Your task to perform on an android device: turn vacation reply on in the gmail app Image 0: 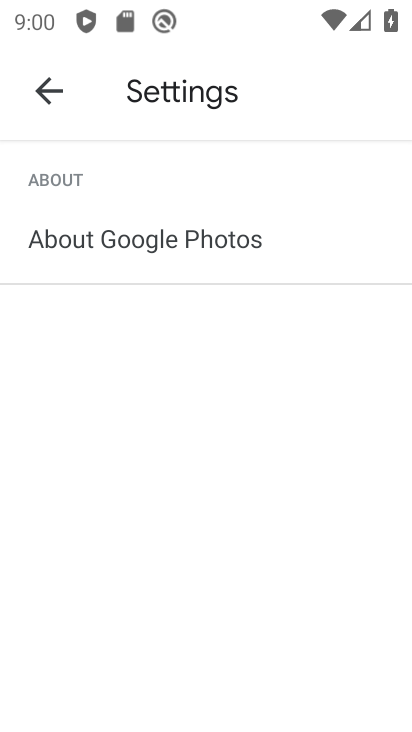
Step 0: press home button
Your task to perform on an android device: turn vacation reply on in the gmail app Image 1: 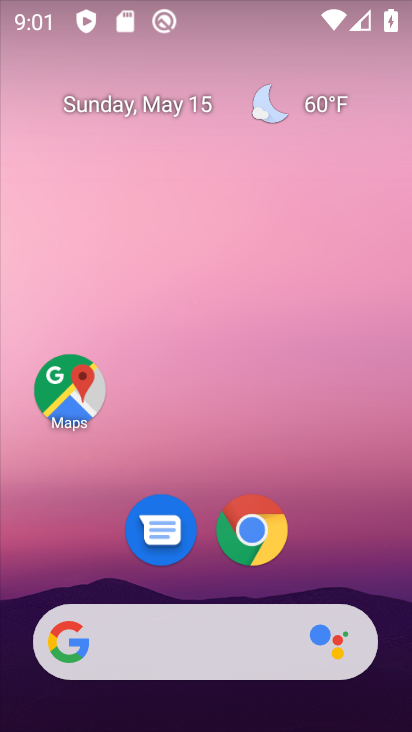
Step 1: drag from (361, 551) to (350, 92)
Your task to perform on an android device: turn vacation reply on in the gmail app Image 2: 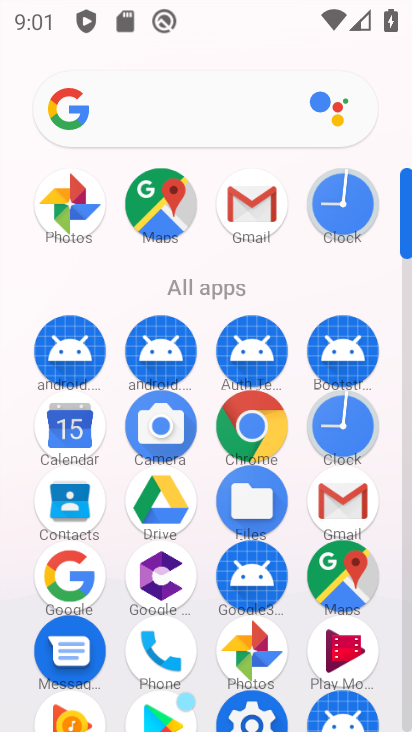
Step 2: click (348, 499)
Your task to perform on an android device: turn vacation reply on in the gmail app Image 3: 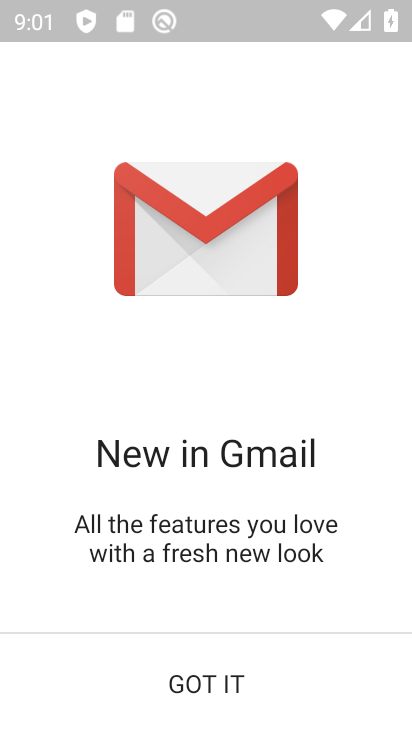
Step 3: click (241, 681)
Your task to perform on an android device: turn vacation reply on in the gmail app Image 4: 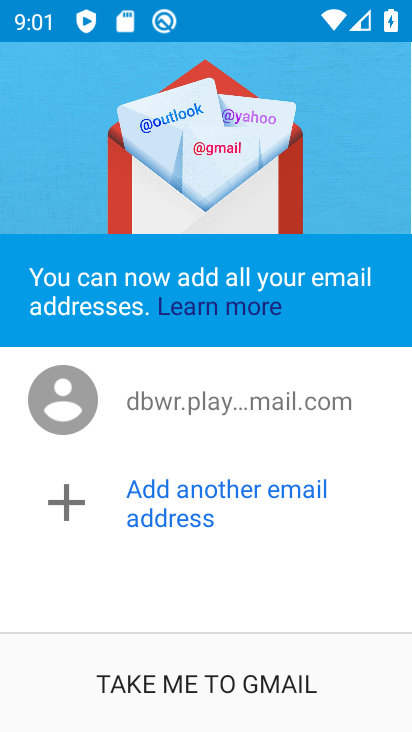
Step 4: click (241, 681)
Your task to perform on an android device: turn vacation reply on in the gmail app Image 5: 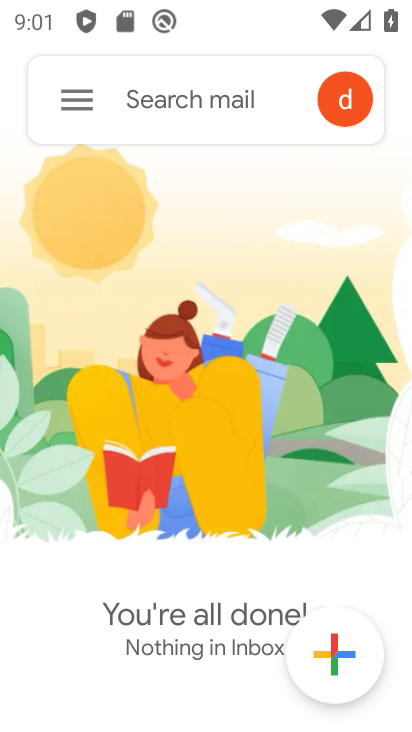
Step 5: click (78, 99)
Your task to perform on an android device: turn vacation reply on in the gmail app Image 6: 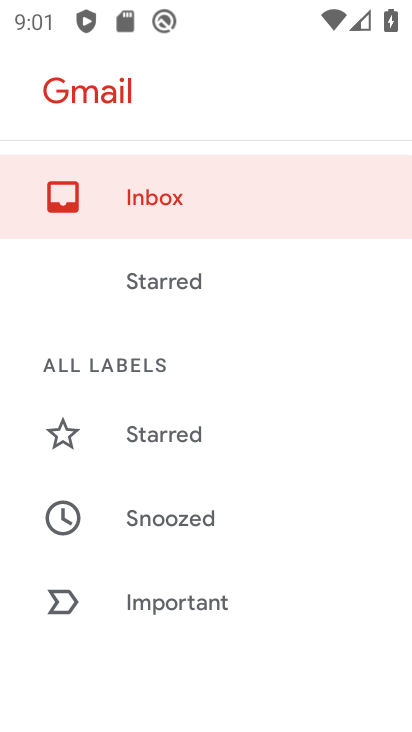
Step 6: drag from (322, 609) to (324, 383)
Your task to perform on an android device: turn vacation reply on in the gmail app Image 7: 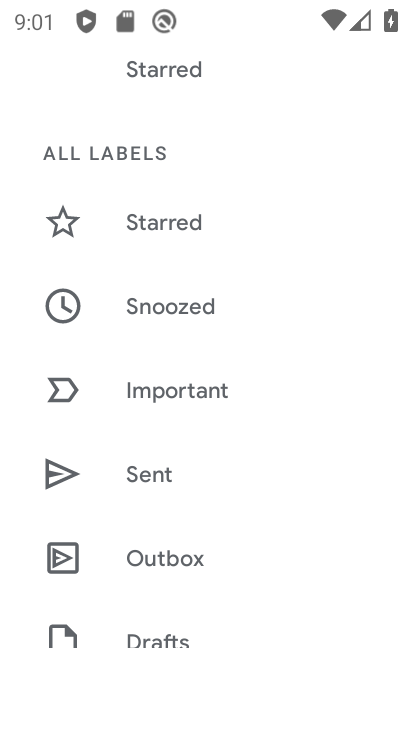
Step 7: drag from (309, 602) to (319, 458)
Your task to perform on an android device: turn vacation reply on in the gmail app Image 8: 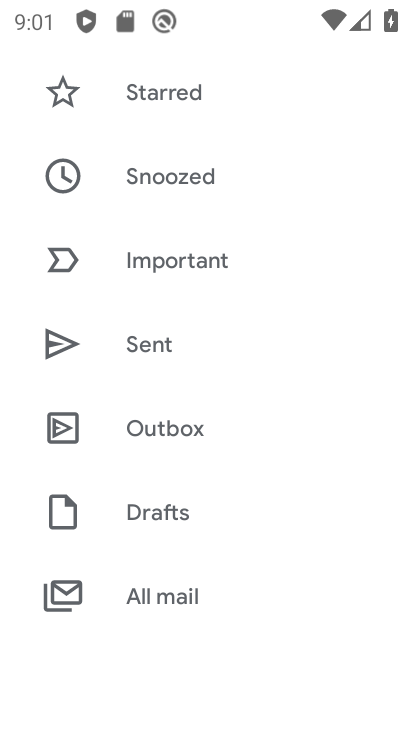
Step 8: drag from (316, 639) to (325, 451)
Your task to perform on an android device: turn vacation reply on in the gmail app Image 9: 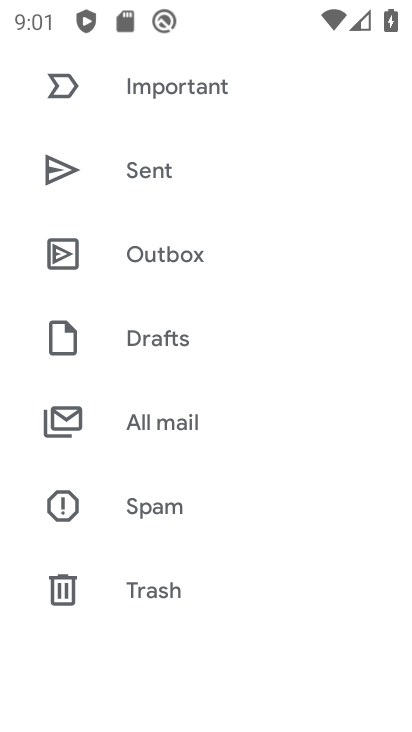
Step 9: drag from (310, 643) to (313, 446)
Your task to perform on an android device: turn vacation reply on in the gmail app Image 10: 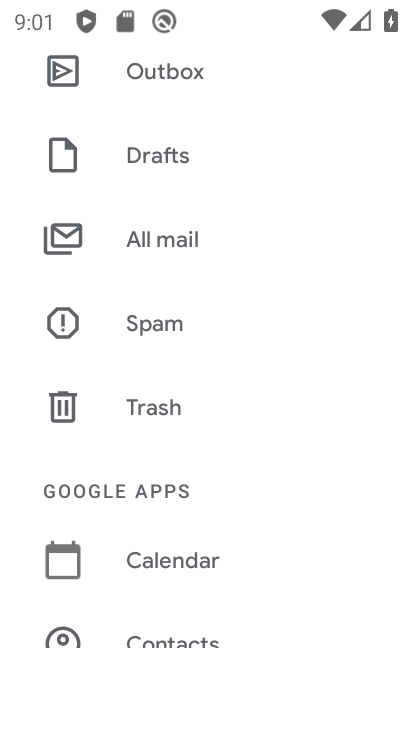
Step 10: drag from (310, 609) to (313, 478)
Your task to perform on an android device: turn vacation reply on in the gmail app Image 11: 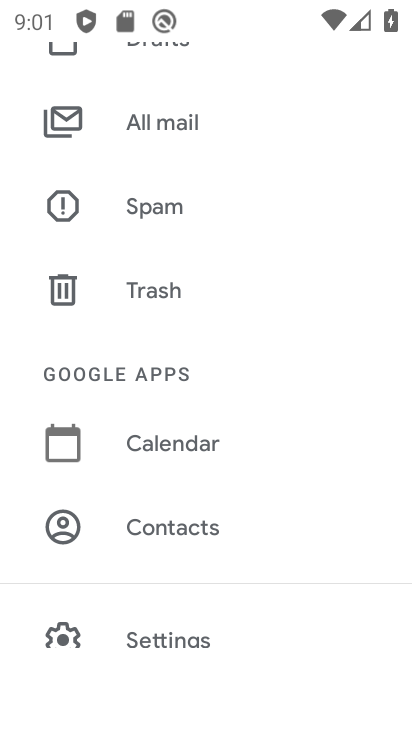
Step 11: drag from (292, 613) to (292, 478)
Your task to perform on an android device: turn vacation reply on in the gmail app Image 12: 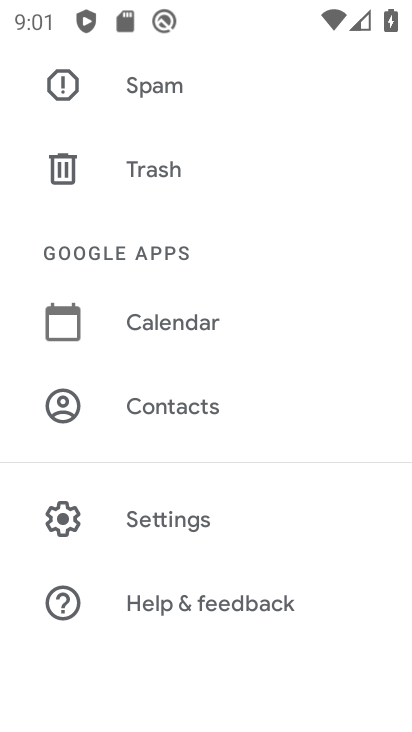
Step 12: click (189, 535)
Your task to perform on an android device: turn vacation reply on in the gmail app Image 13: 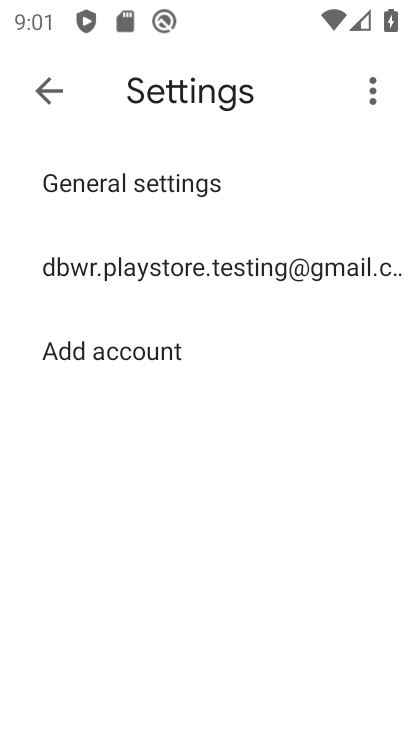
Step 13: click (235, 254)
Your task to perform on an android device: turn vacation reply on in the gmail app Image 14: 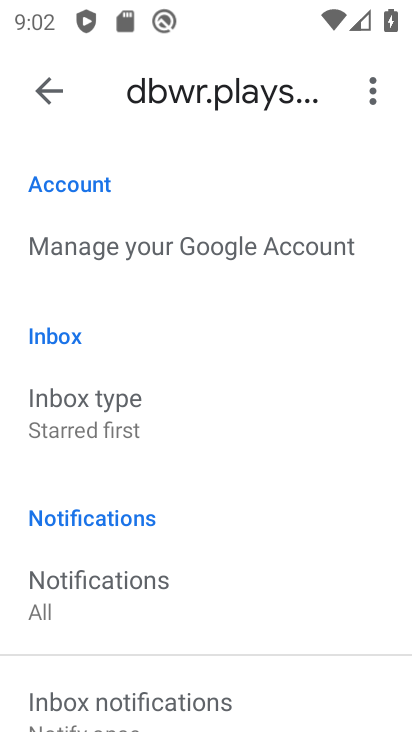
Step 14: drag from (268, 563) to (270, 340)
Your task to perform on an android device: turn vacation reply on in the gmail app Image 15: 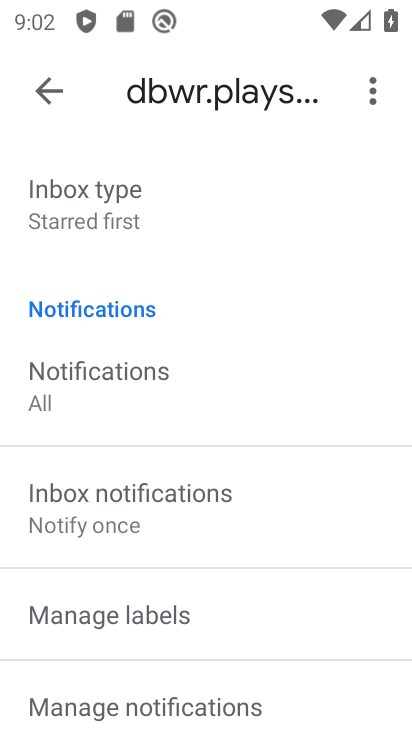
Step 15: drag from (295, 684) to (303, 371)
Your task to perform on an android device: turn vacation reply on in the gmail app Image 16: 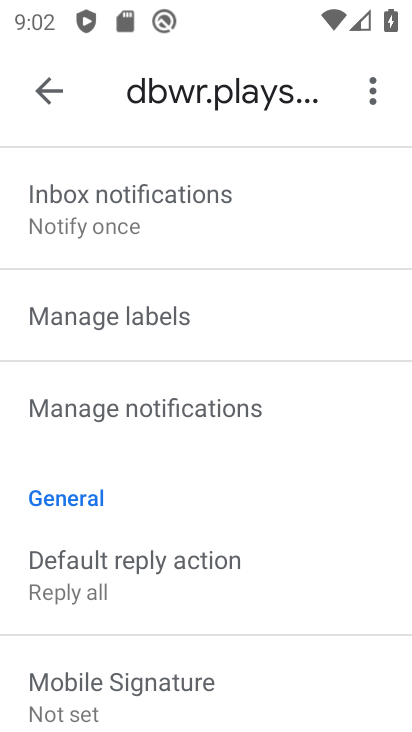
Step 16: drag from (306, 588) to (305, 519)
Your task to perform on an android device: turn vacation reply on in the gmail app Image 17: 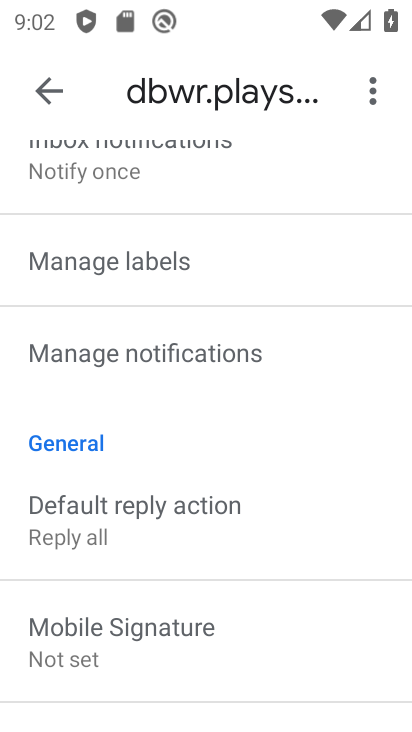
Step 17: drag from (294, 674) to (285, 441)
Your task to perform on an android device: turn vacation reply on in the gmail app Image 18: 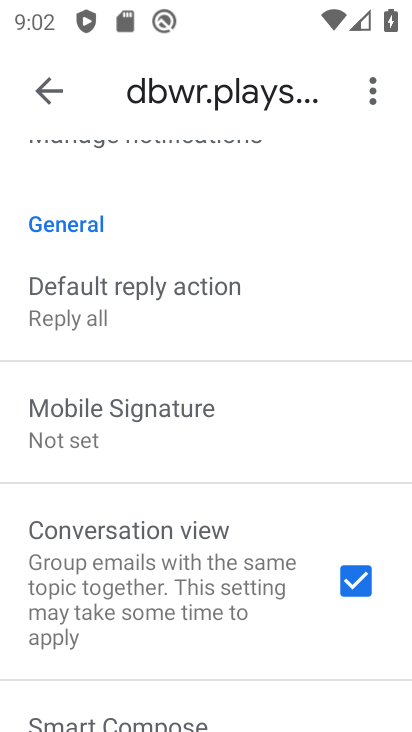
Step 18: drag from (264, 668) to (261, 419)
Your task to perform on an android device: turn vacation reply on in the gmail app Image 19: 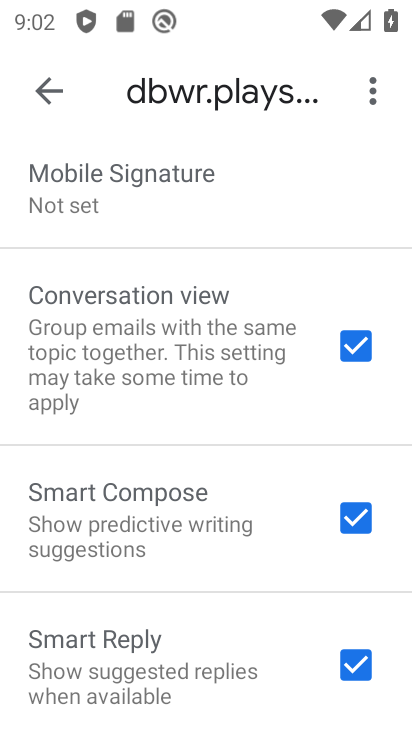
Step 19: drag from (248, 705) to (244, 462)
Your task to perform on an android device: turn vacation reply on in the gmail app Image 20: 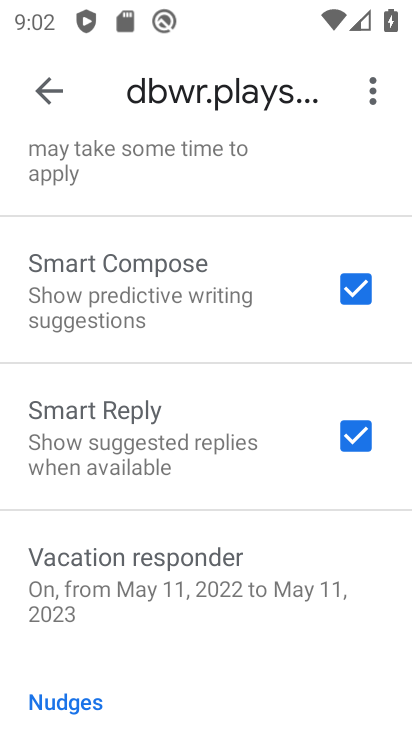
Step 20: click (191, 574)
Your task to perform on an android device: turn vacation reply on in the gmail app Image 21: 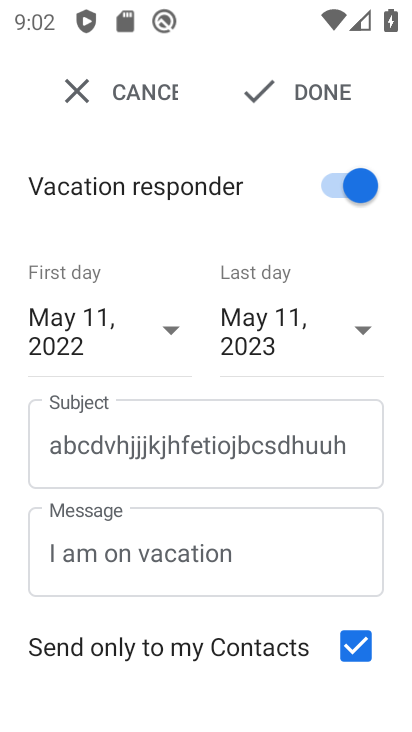
Step 21: task complete